Your task to perform on an android device: What's the weather going to be tomorrow? Image 0: 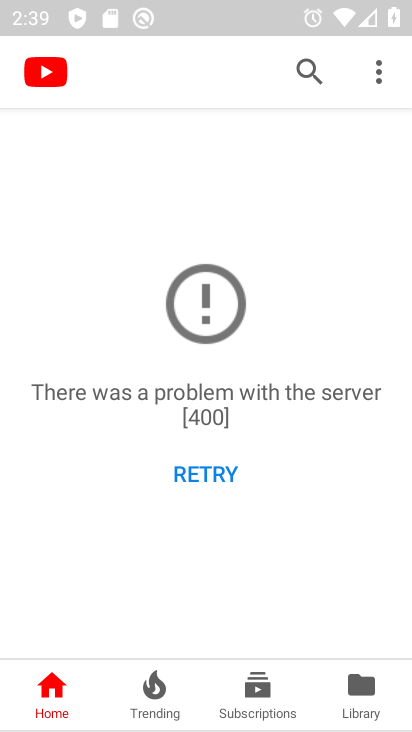
Step 0: press home button
Your task to perform on an android device: What's the weather going to be tomorrow? Image 1: 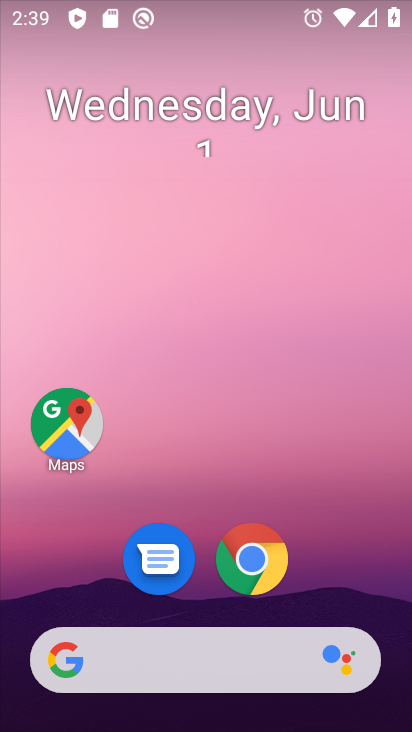
Step 1: drag from (337, 591) to (336, 39)
Your task to perform on an android device: What's the weather going to be tomorrow? Image 2: 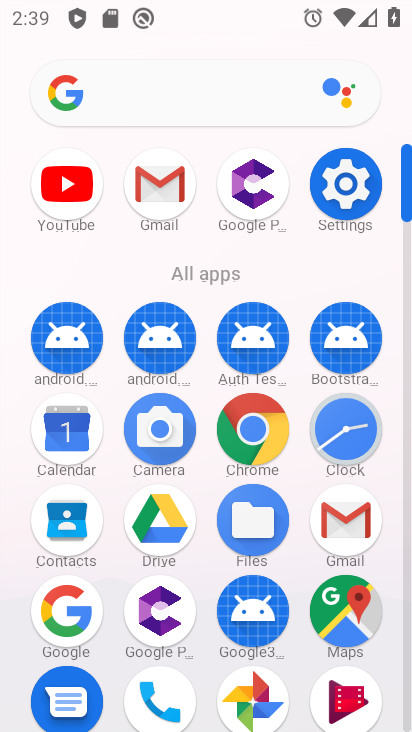
Step 2: click (69, 441)
Your task to perform on an android device: What's the weather going to be tomorrow? Image 3: 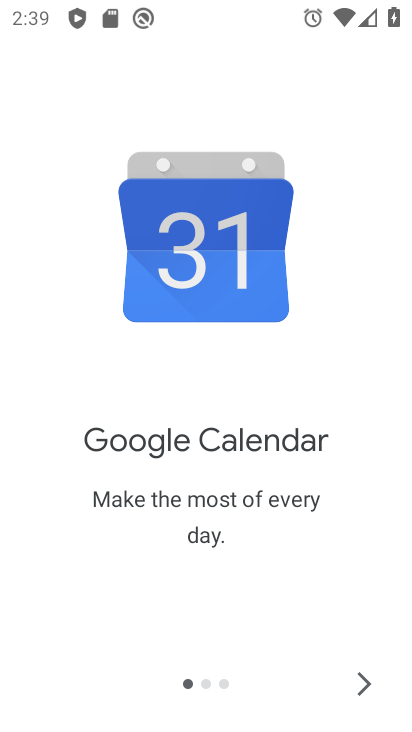
Step 3: click (367, 690)
Your task to perform on an android device: What's the weather going to be tomorrow? Image 4: 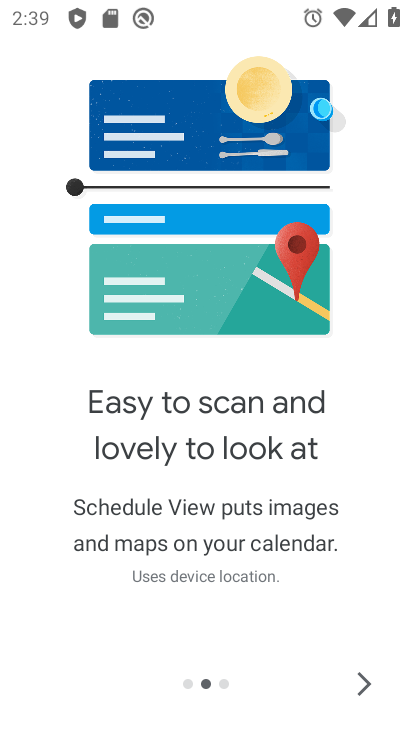
Step 4: click (368, 690)
Your task to perform on an android device: What's the weather going to be tomorrow? Image 5: 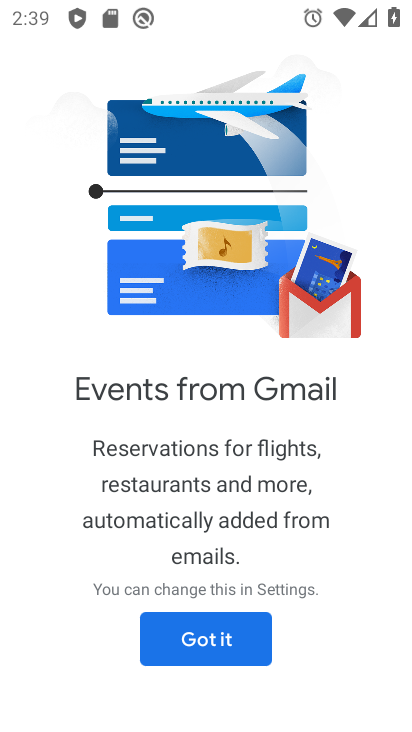
Step 5: click (245, 632)
Your task to perform on an android device: What's the weather going to be tomorrow? Image 6: 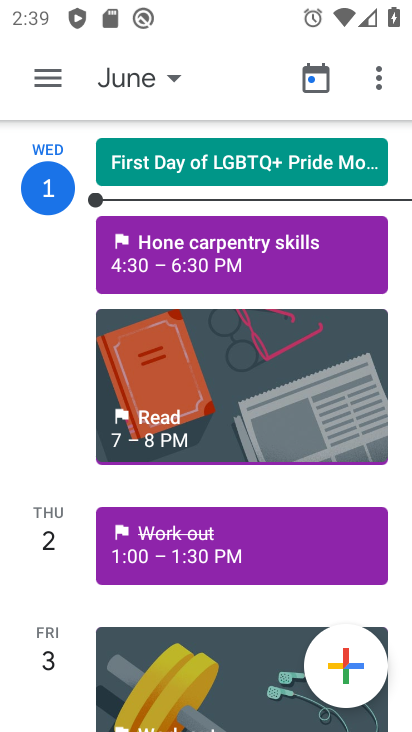
Step 6: click (123, 91)
Your task to perform on an android device: What's the weather going to be tomorrow? Image 7: 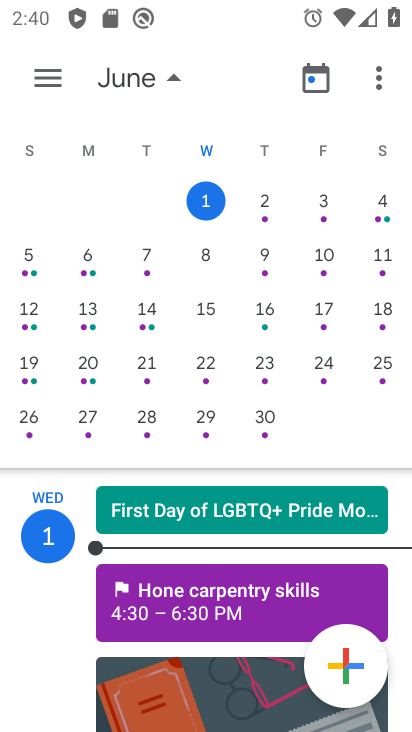
Step 7: click (263, 213)
Your task to perform on an android device: What's the weather going to be tomorrow? Image 8: 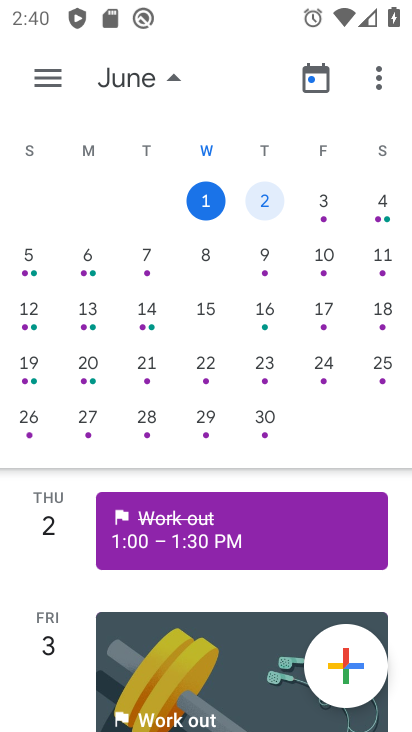
Step 8: task complete